Your task to perform on an android device: turn on notifications settings in the gmail app Image 0: 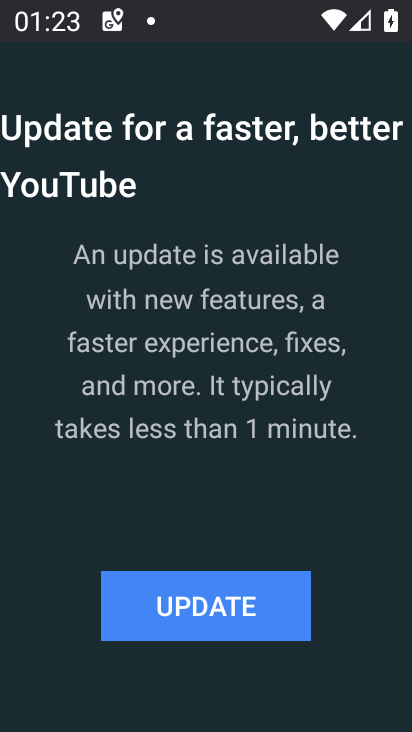
Step 0: press home button
Your task to perform on an android device: turn on notifications settings in the gmail app Image 1: 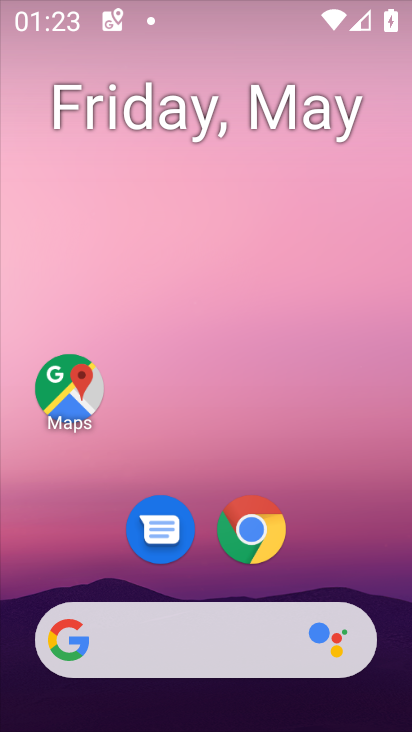
Step 1: drag from (282, 570) to (311, 223)
Your task to perform on an android device: turn on notifications settings in the gmail app Image 2: 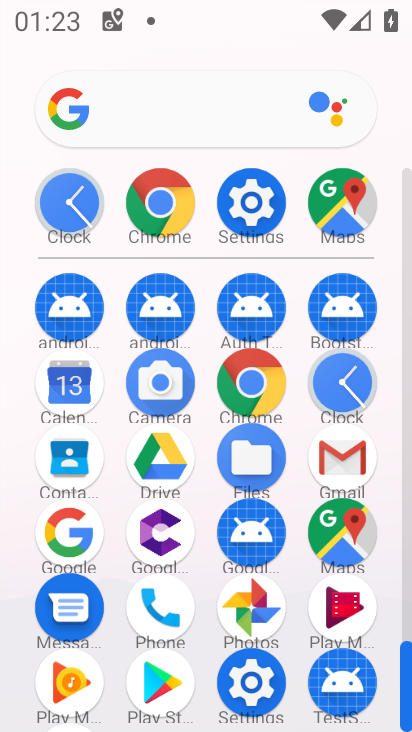
Step 2: click (346, 457)
Your task to perform on an android device: turn on notifications settings in the gmail app Image 3: 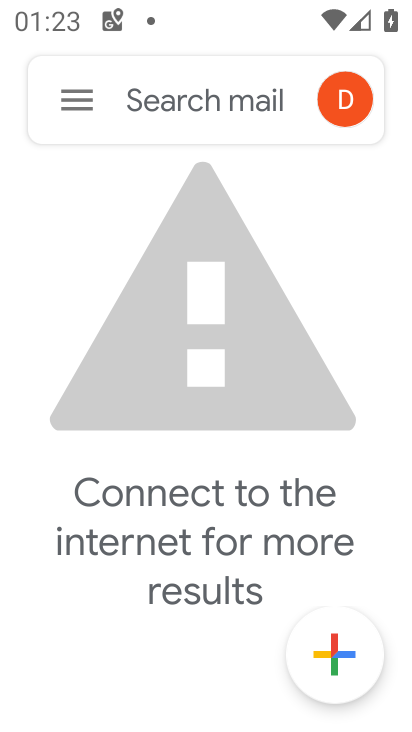
Step 3: click (67, 100)
Your task to perform on an android device: turn on notifications settings in the gmail app Image 4: 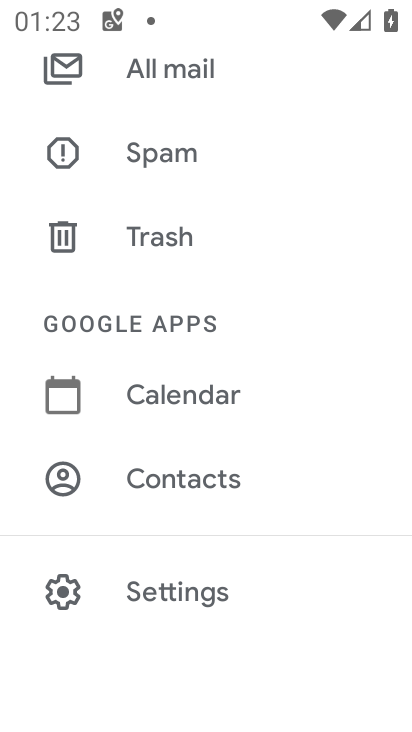
Step 4: click (211, 599)
Your task to perform on an android device: turn on notifications settings in the gmail app Image 5: 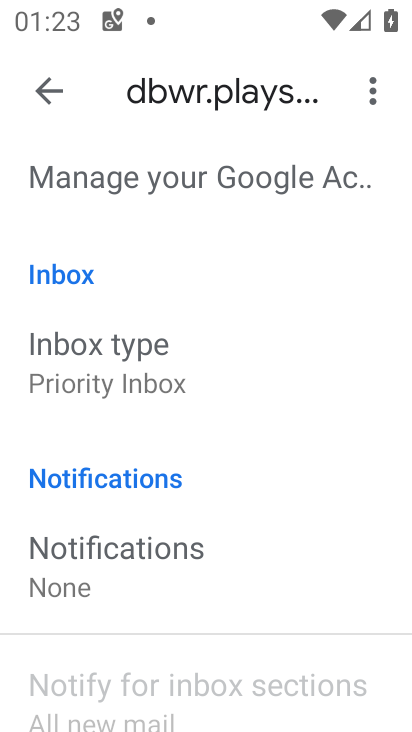
Step 5: click (153, 552)
Your task to perform on an android device: turn on notifications settings in the gmail app Image 6: 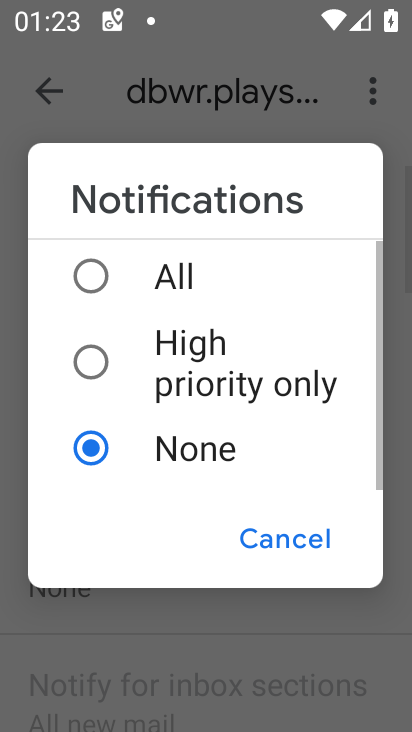
Step 6: click (180, 261)
Your task to perform on an android device: turn on notifications settings in the gmail app Image 7: 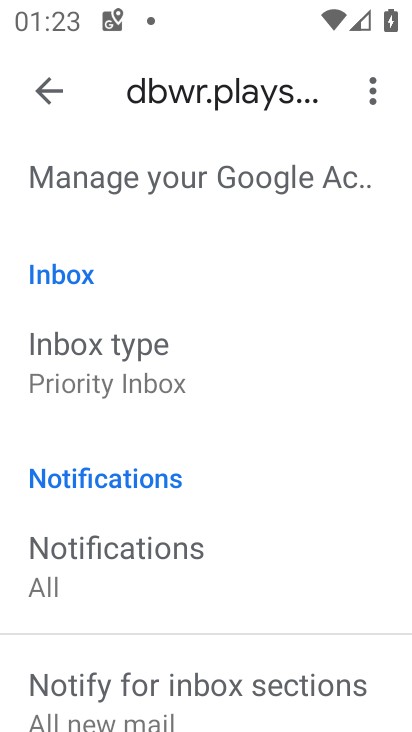
Step 7: task complete